Your task to perform on an android device: Toggle the flashlight Image 0: 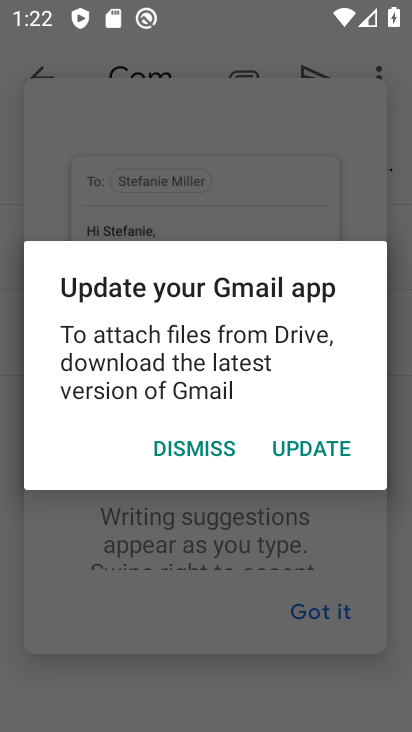
Step 0: press home button
Your task to perform on an android device: Toggle the flashlight Image 1: 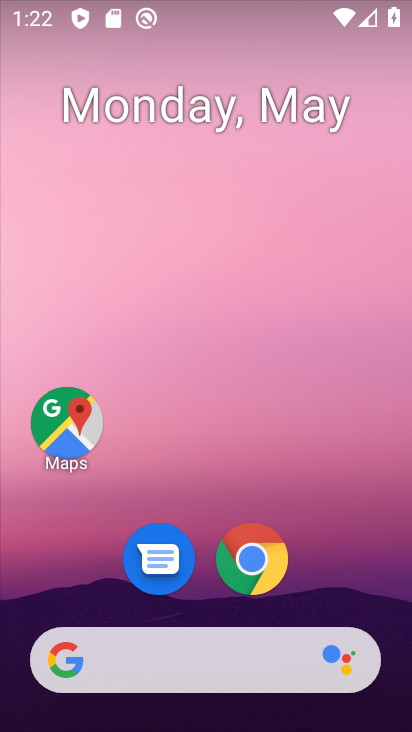
Step 1: drag from (311, 462) to (257, 24)
Your task to perform on an android device: Toggle the flashlight Image 2: 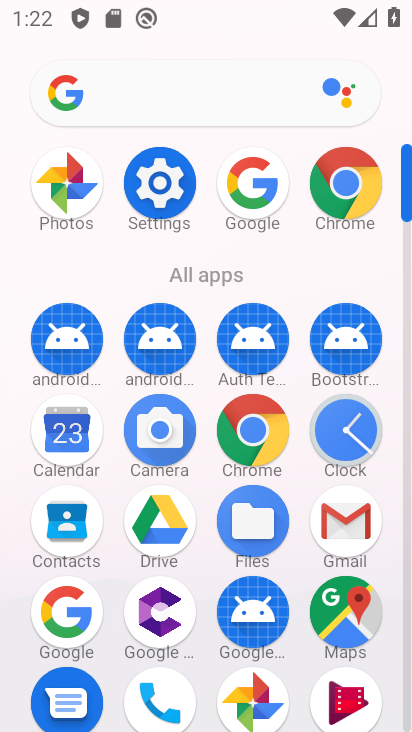
Step 2: click (146, 184)
Your task to perform on an android device: Toggle the flashlight Image 3: 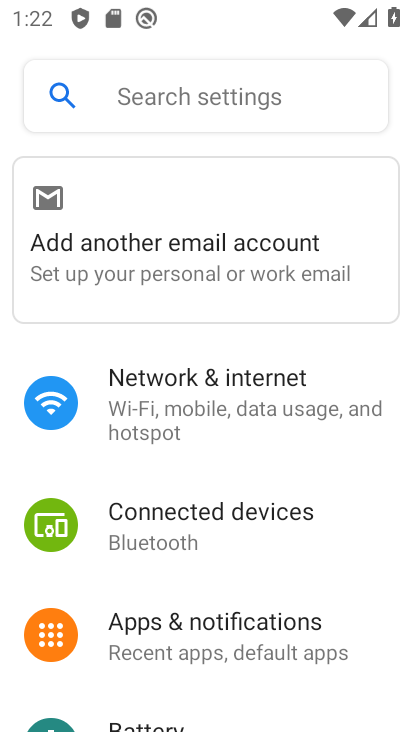
Step 3: drag from (264, 579) to (275, 174)
Your task to perform on an android device: Toggle the flashlight Image 4: 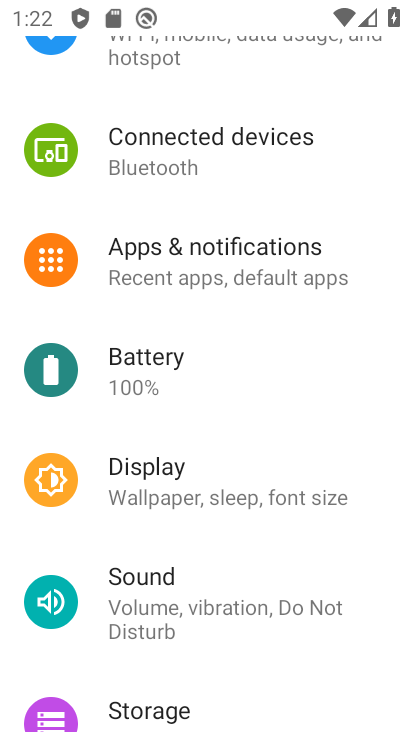
Step 4: click (164, 493)
Your task to perform on an android device: Toggle the flashlight Image 5: 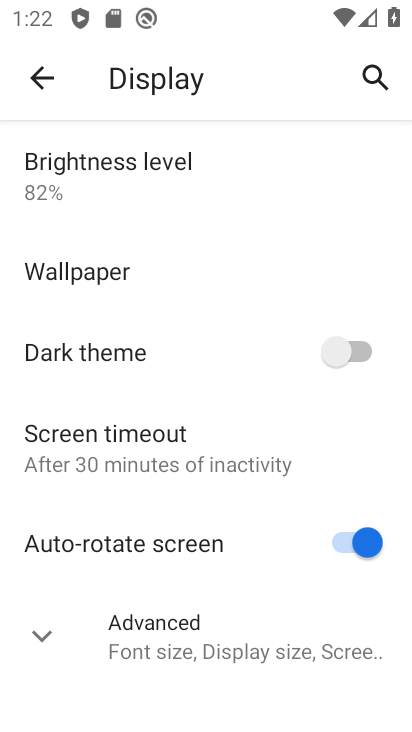
Step 5: task complete